Your task to perform on an android device: Go to eBay Image 0: 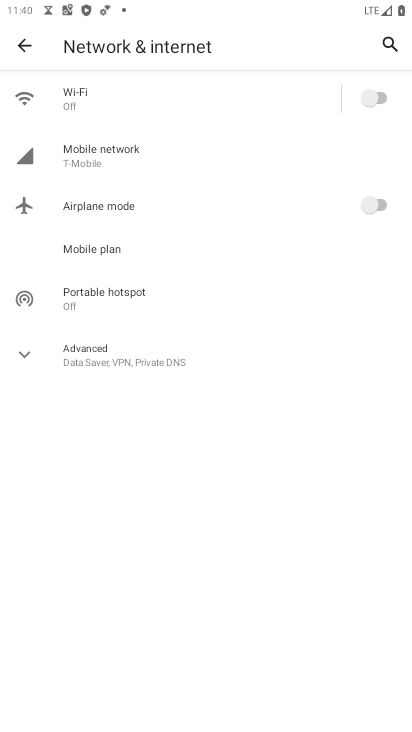
Step 0: press home button
Your task to perform on an android device: Go to eBay Image 1: 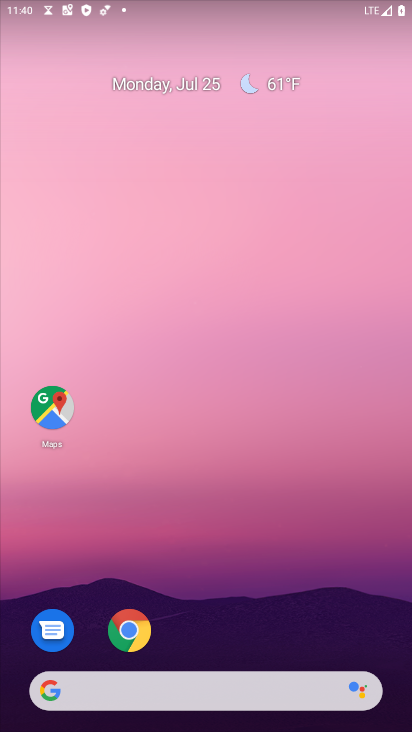
Step 1: click (135, 620)
Your task to perform on an android device: Go to eBay Image 2: 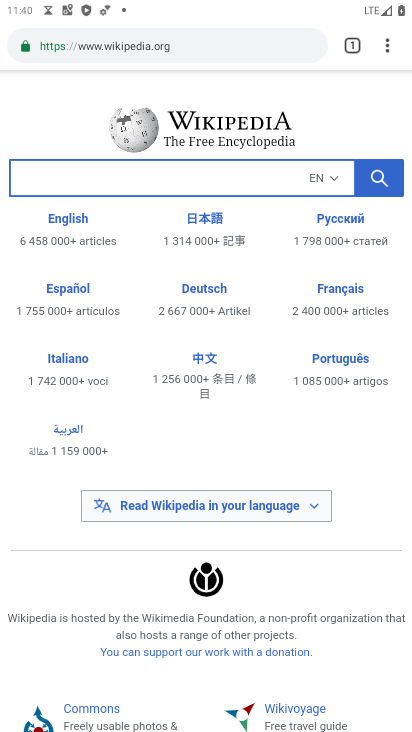
Step 2: click (233, 37)
Your task to perform on an android device: Go to eBay Image 3: 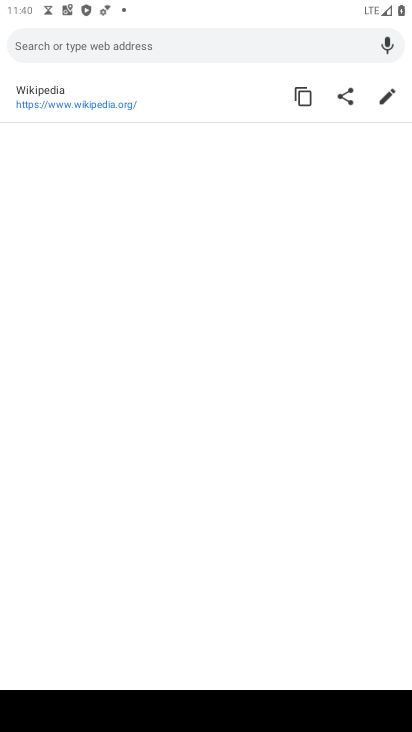
Step 3: type "ebay"
Your task to perform on an android device: Go to eBay Image 4: 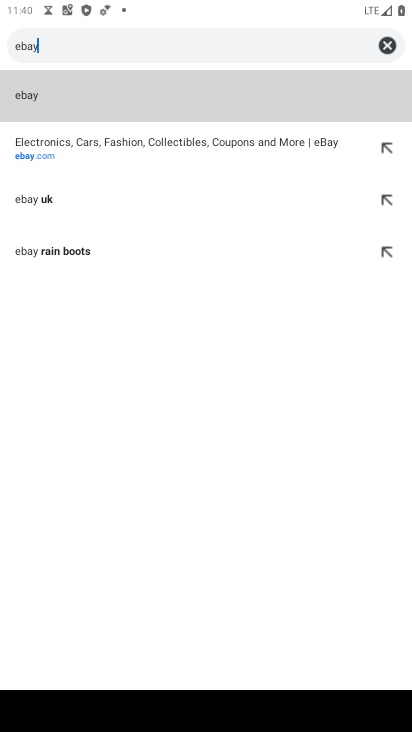
Step 4: click (254, 83)
Your task to perform on an android device: Go to eBay Image 5: 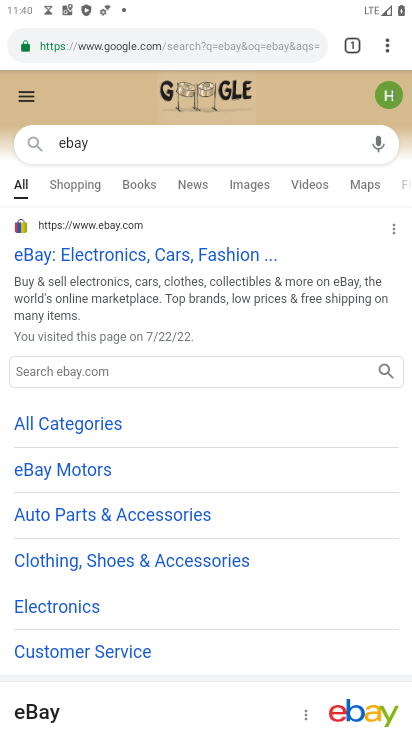
Step 5: click (143, 256)
Your task to perform on an android device: Go to eBay Image 6: 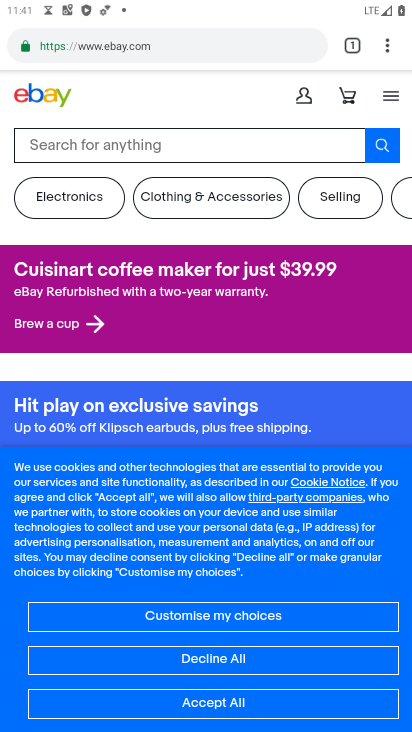
Step 6: task complete